Your task to perform on an android device: star an email in the gmail app Image 0: 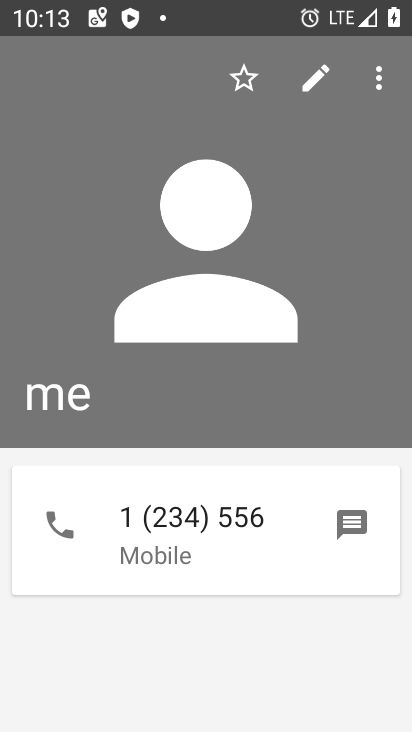
Step 0: press home button
Your task to perform on an android device: star an email in the gmail app Image 1: 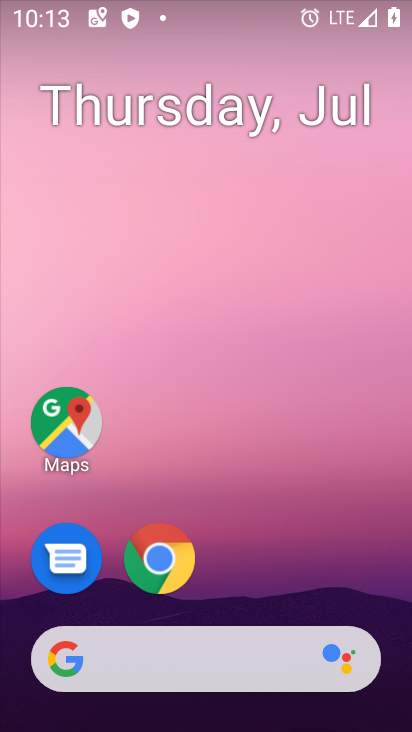
Step 1: drag from (370, 552) to (369, 153)
Your task to perform on an android device: star an email in the gmail app Image 2: 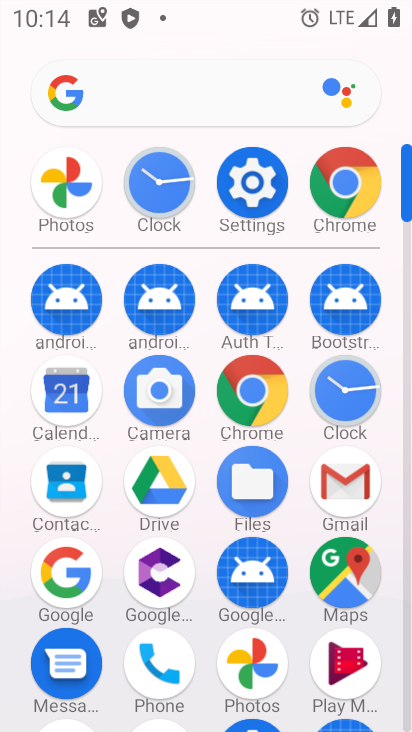
Step 2: click (344, 486)
Your task to perform on an android device: star an email in the gmail app Image 3: 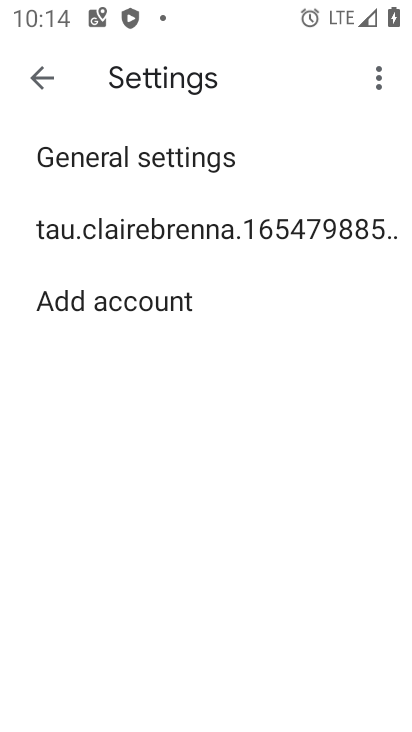
Step 3: press back button
Your task to perform on an android device: star an email in the gmail app Image 4: 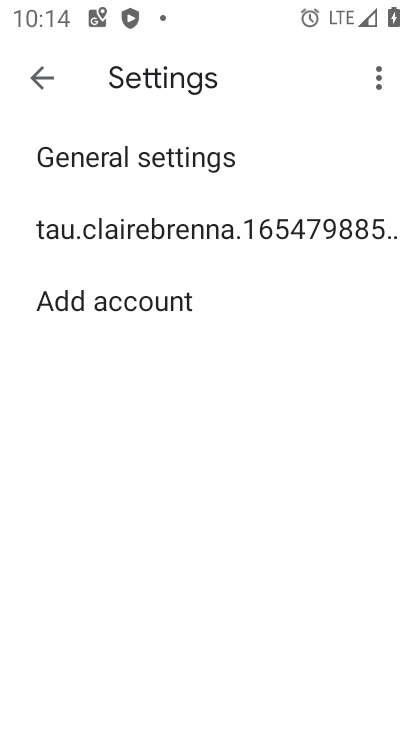
Step 4: press back button
Your task to perform on an android device: star an email in the gmail app Image 5: 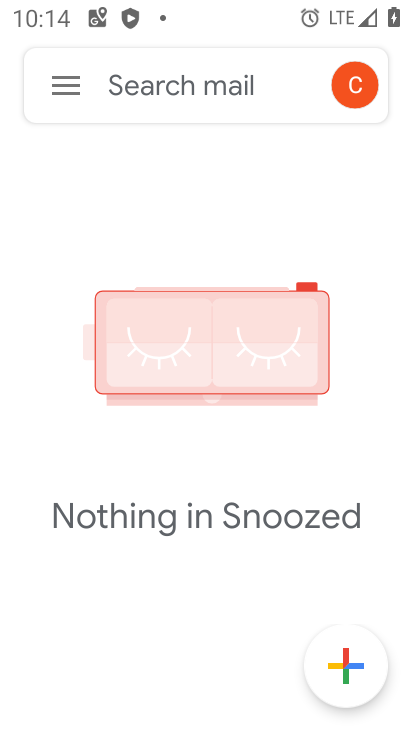
Step 5: click (66, 88)
Your task to perform on an android device: star an email in the gmail app Image 6: 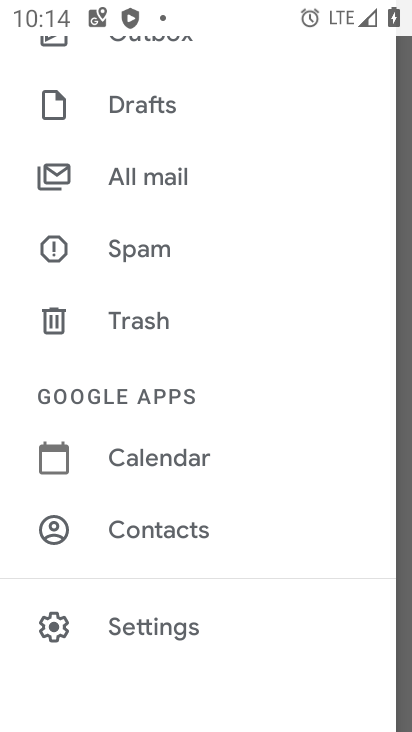
Step 6: drag from (255, 246) to (294, 353)
Your task to perform on an android device: star an email in the gmail app Image 7: 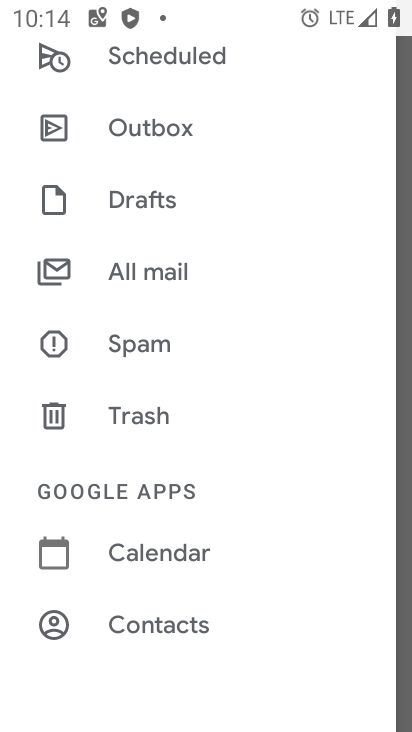
Step 7: drag from (307, 224) to (325, 348)
Your task to perform on an android device: star an email in the gmail app Image 8: 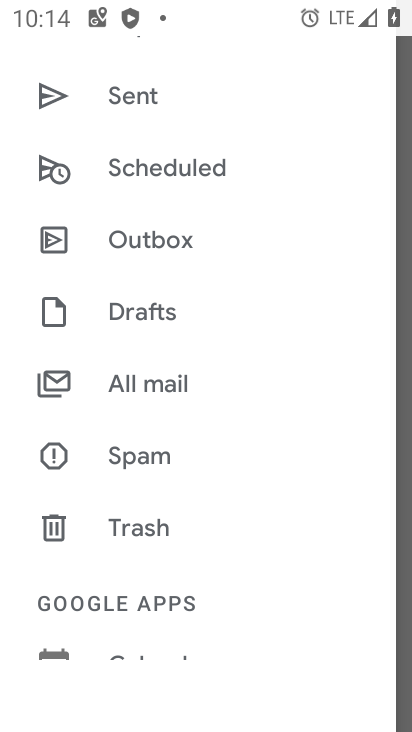
Step 8: drag from (308, 208) to (313, 354)
Your task to perform on an android device: star an email in the gmail app Image 9: 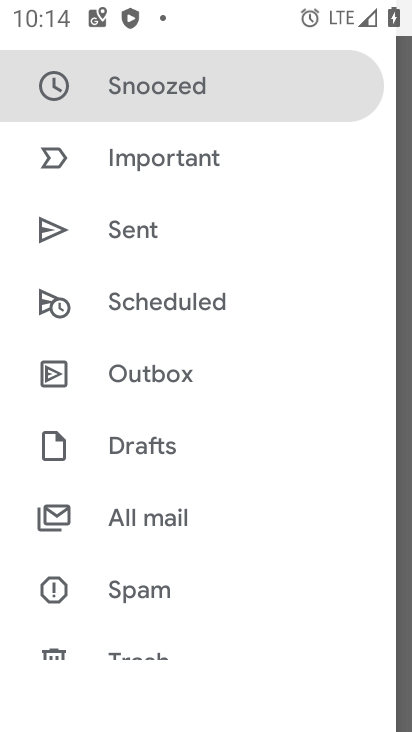
Step 9: drag from (318, 311) to (321, 427)
Your task to perform on an android device: star an email in the gmail app Image 10: 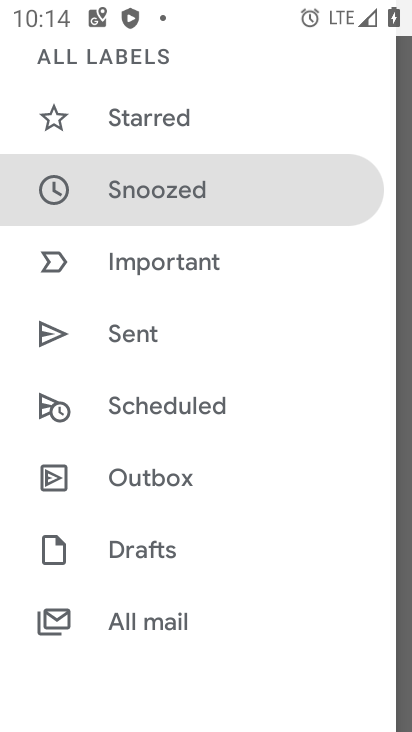
Step 10: drag from (310, 496) to (306, 372)
Your task to perform on an android device: star an email in the gmail app Image 11: 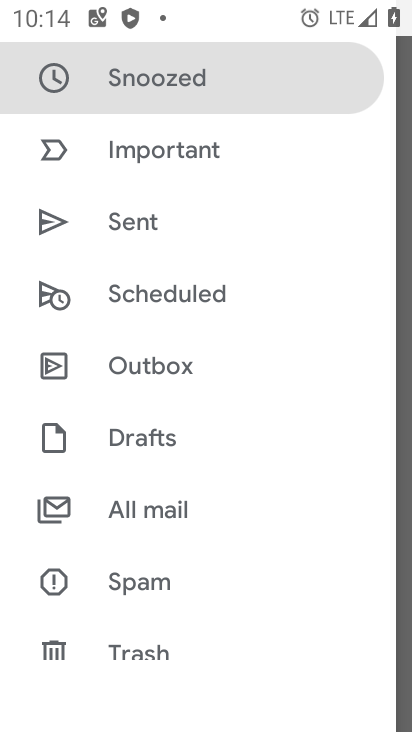
Step 11: drag from (303, 473) to (301, 379)
Your task to perform on an android device: star an email in the gmail app Image 12: 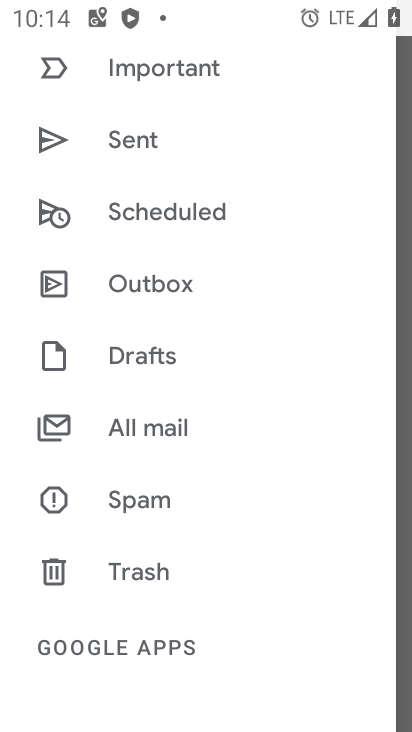
Step 12: click (200, 423)
Your task to perform on an android device: star an email in the gmail app Image 13: 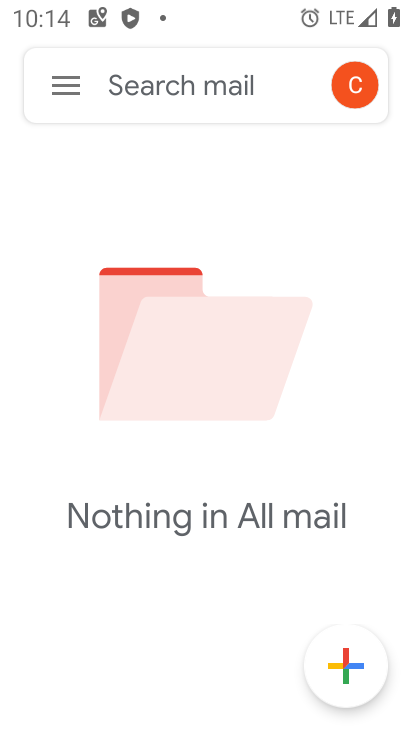
Step 13: task complete